Your task to perform on an android device: Go to sound settings Image 0: 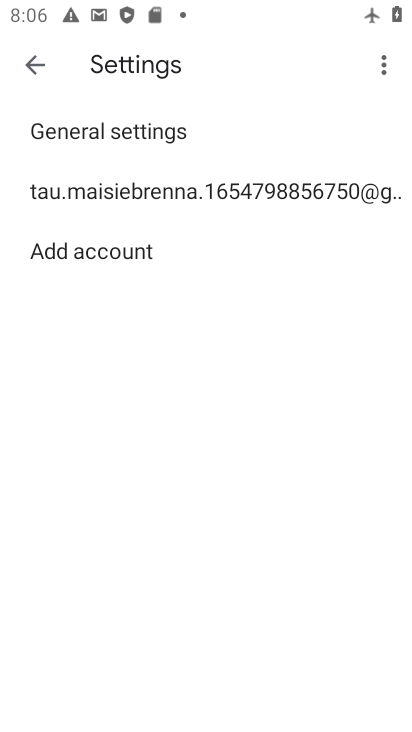
Step 0: press home button
Your task to perform on an android device: Go to sound settings Image 1: 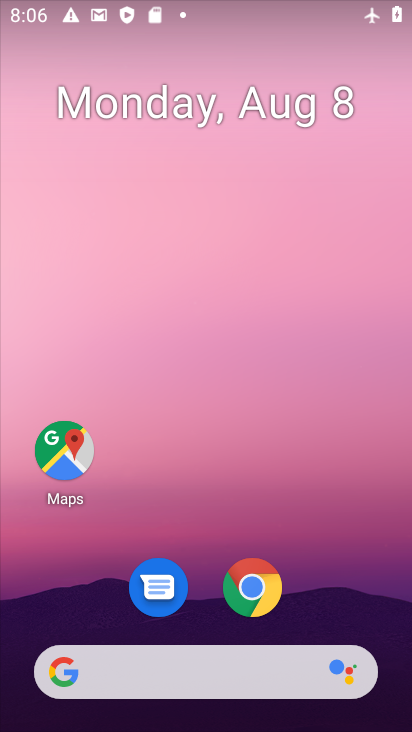
Step 1: drag from (202, 630) to (186, 318)
Your task to perform on an android device: Go to sound settings Image 2: 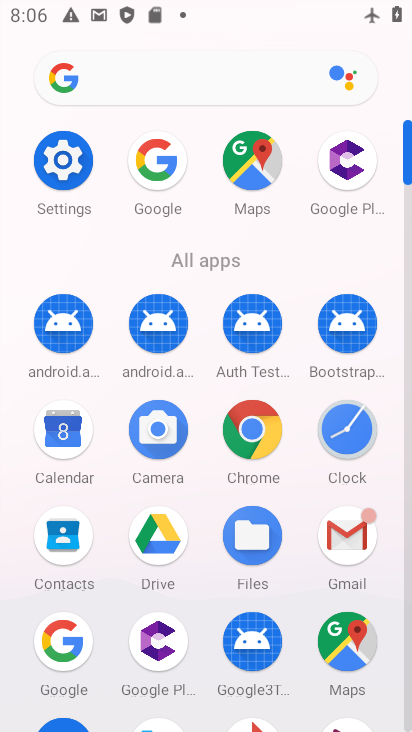
Step 2: click (47, 142)
Your task to perform on an android device: Go to sound settings Image 3: 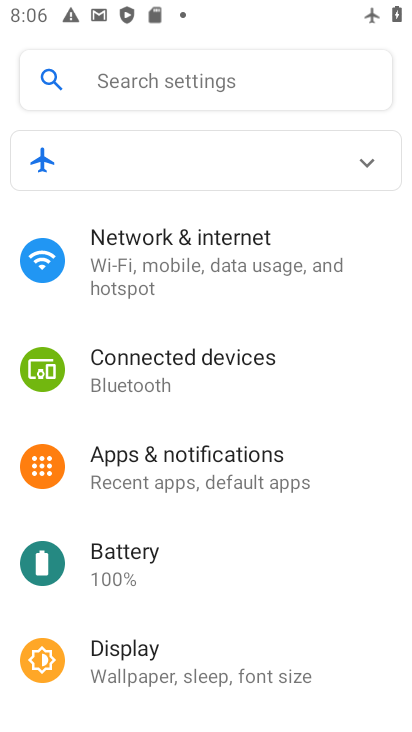
Step 3: drag from (166, 608) to (160, 322)
Your task to perform on an android device: Go to sound settings Image 4: 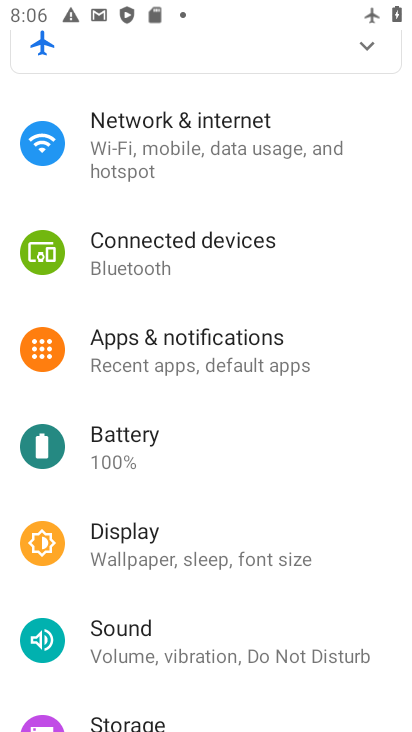
Step 4: click (122, 645)
Your task to perform on an android device: Go to sound settings Image 5: 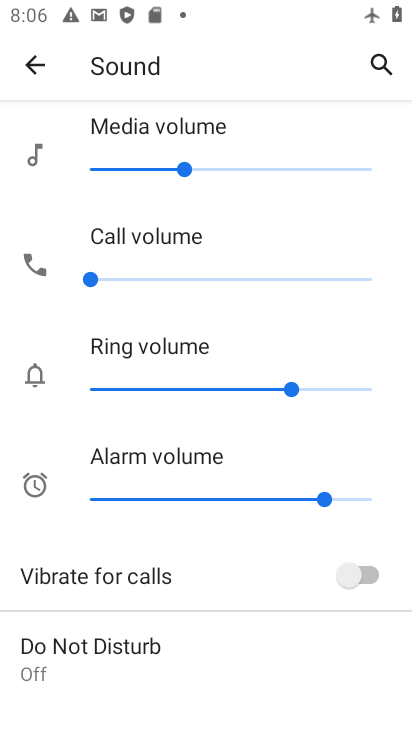
Step 5: task complete